Your task to perform on an android device: Open Google Chrome Image 0: 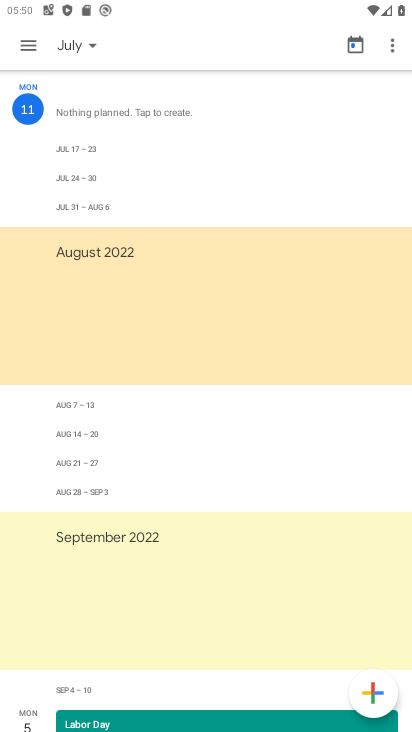
Step 0: press home button
Your task to perform on an android device: Open Google Chrome Image 1: 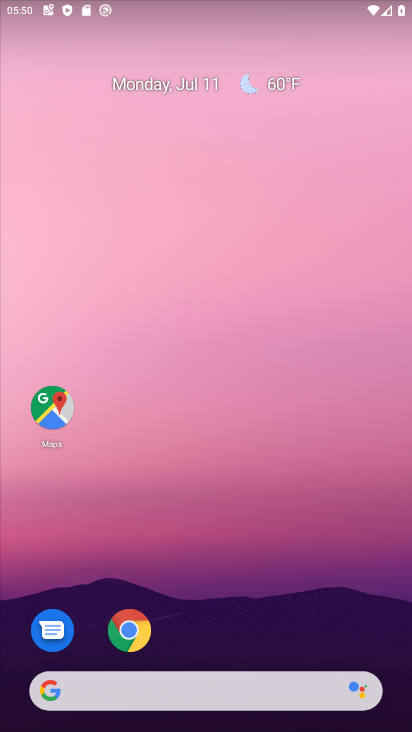
Step 1: click (126, 639)
Your task to perform on an android device: Open Google Chrome Image 2: 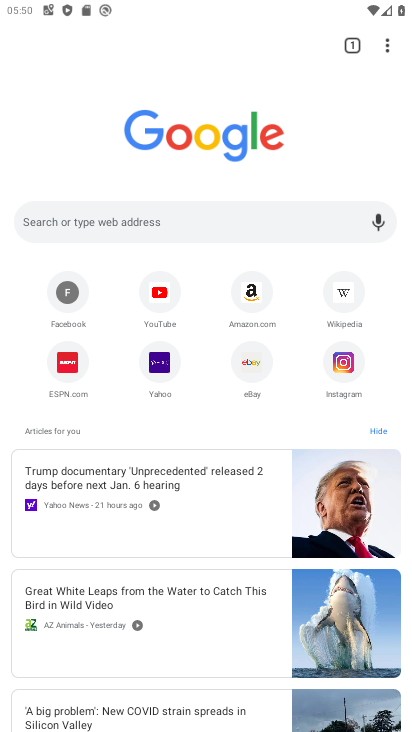
Step 2: task complete